Your task to perform on an android device: Look up the best gaming chair on Best Buy. Image 0: 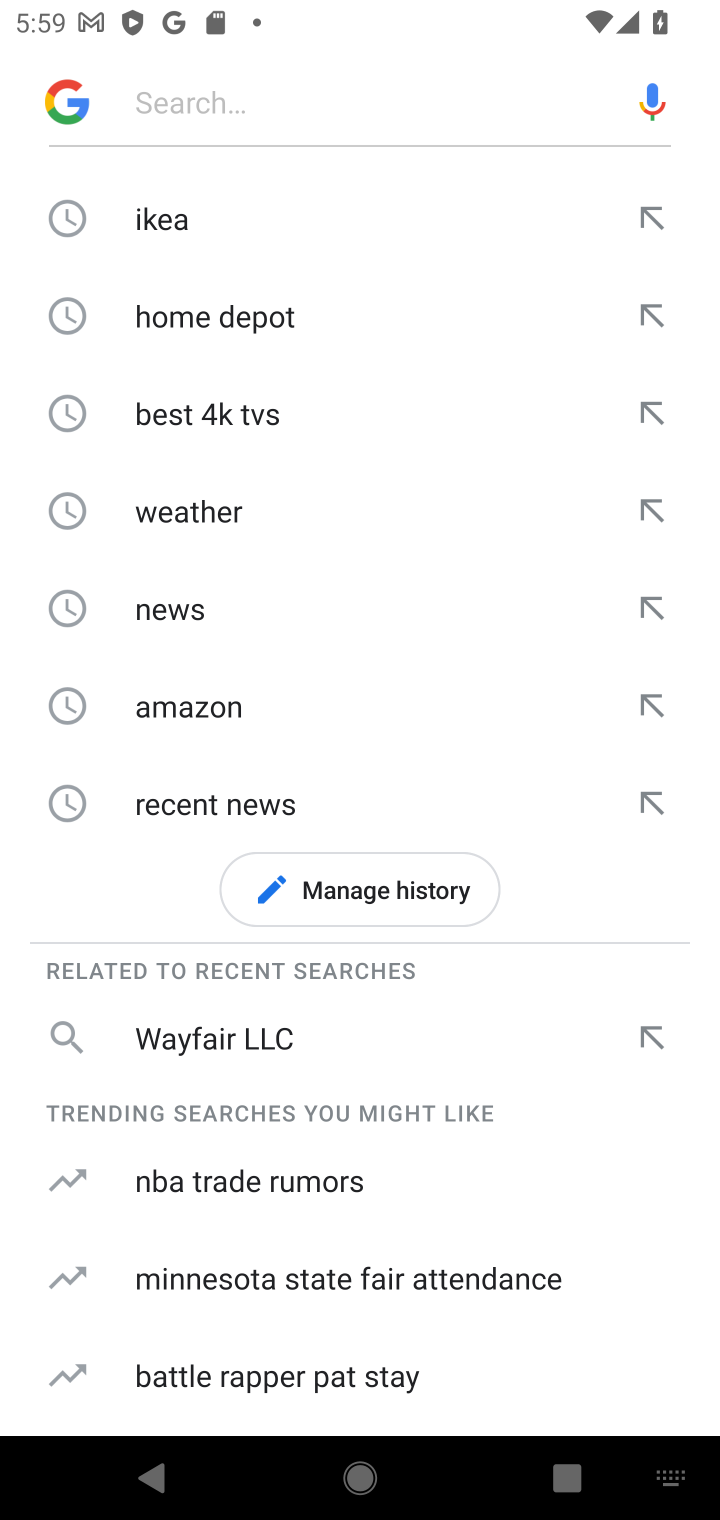
Step 0: press home button
Your task to perform on an android device: Look up the best gaming chair on Best Buy. Image 1: 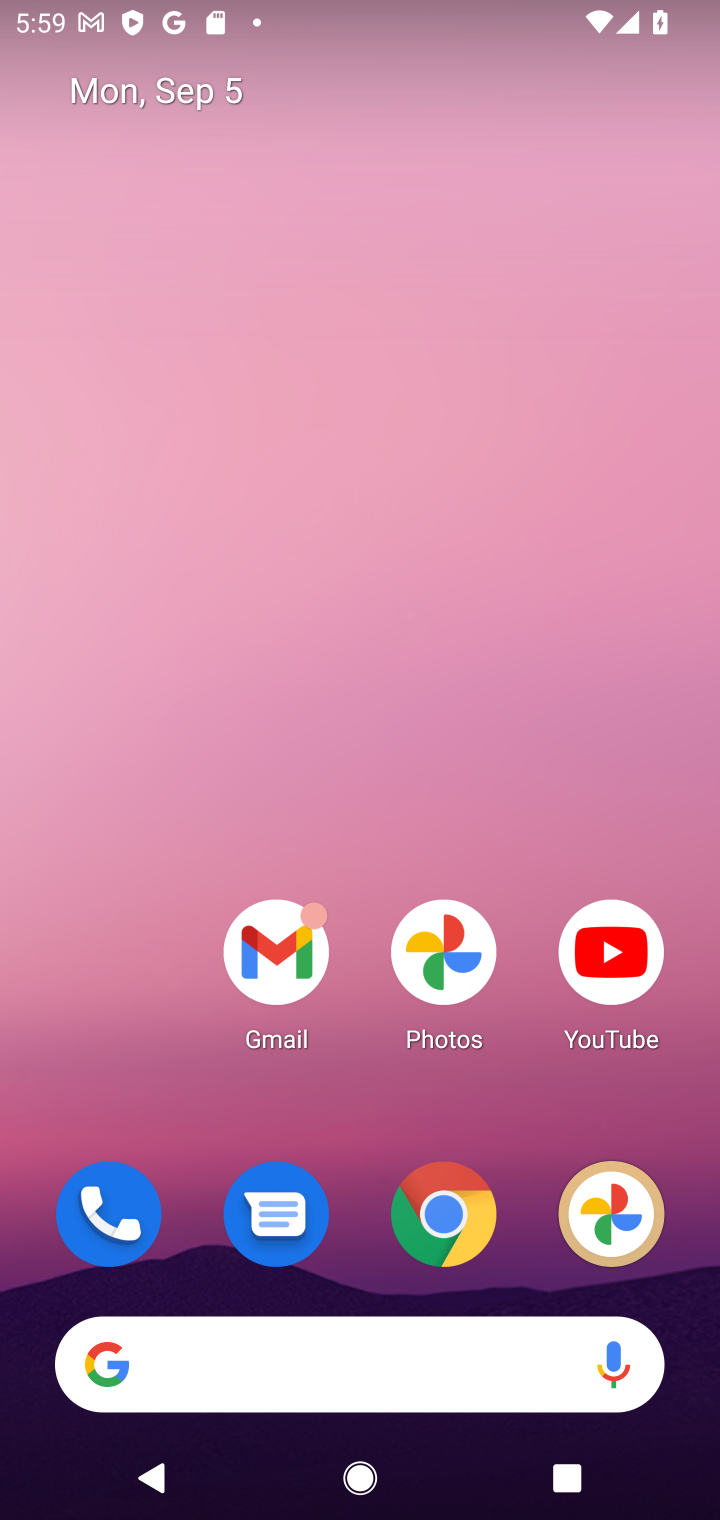
Step 1: drag from (370, 1110) to (308, 2)
Your task to perform on an android device: Look up the best gaming chair on Best Buy. Image 2: 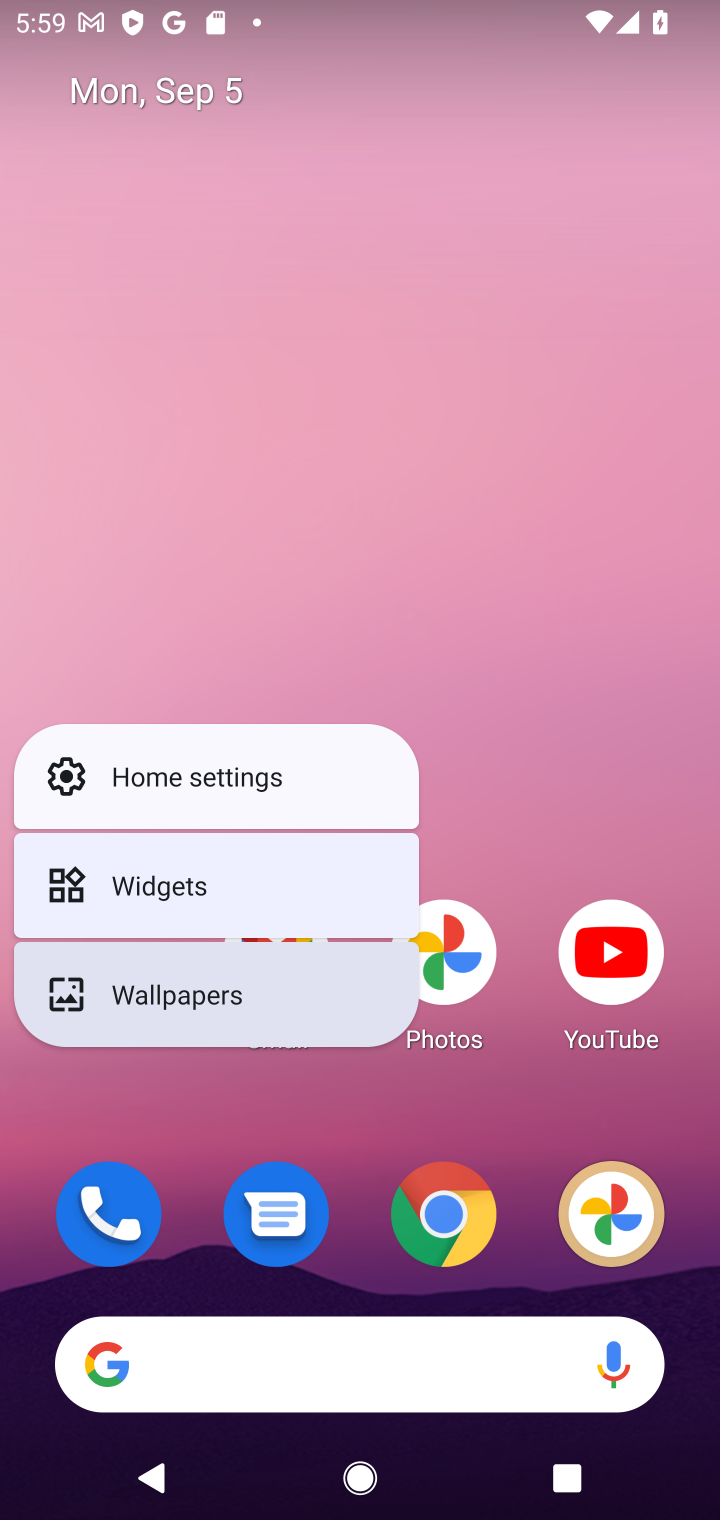
Step 2: click (509, 620)
Your task to perform on an android device: Look up the best gaming chair on Best Buy. Image 3: 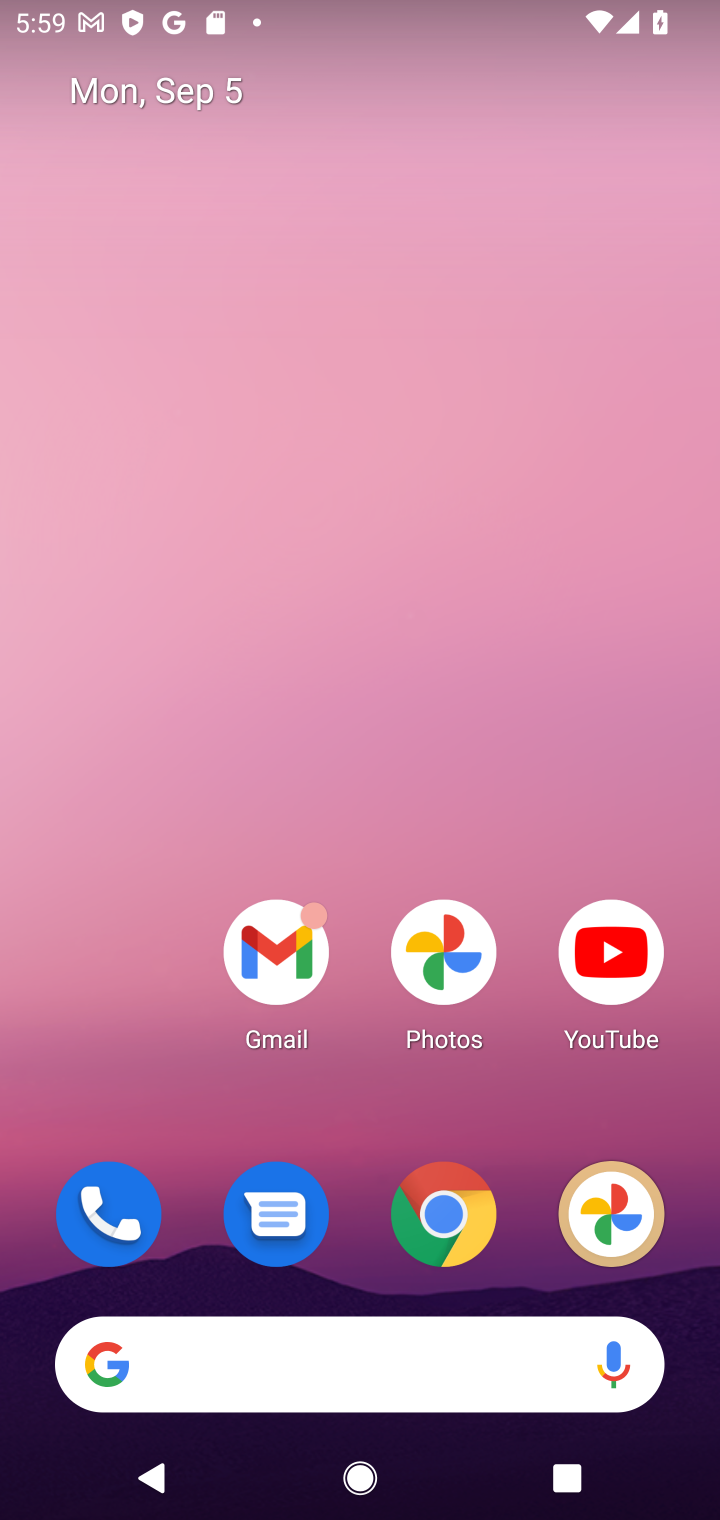
Step 3: drag from (368, 1120) to (346, 185)
Your task to perform on an android device: Look up the best gaming chair on Best Buy. Image 4: 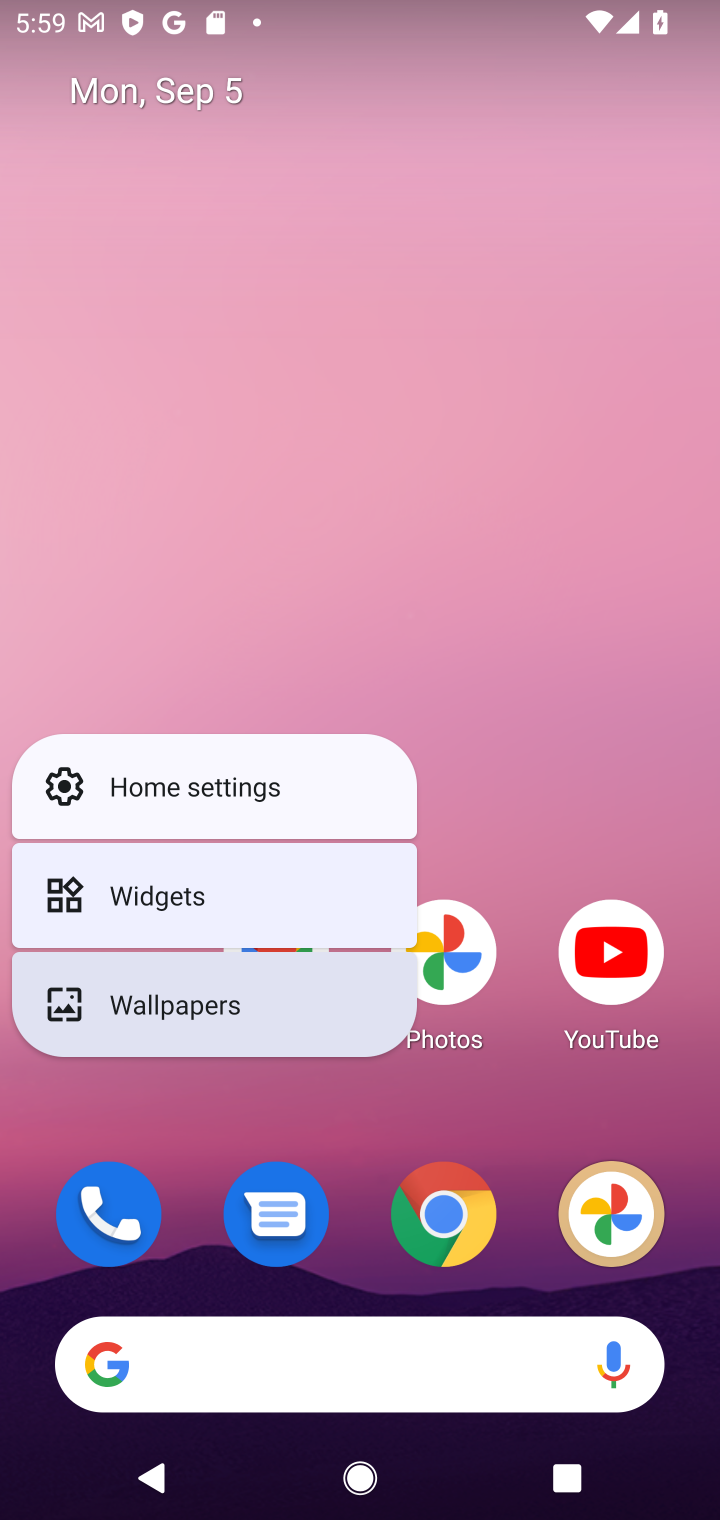
Step 4: click (484, 725)
Your task to perform on an android device: Look up the best gaming chair on Best Buy. Image 5: 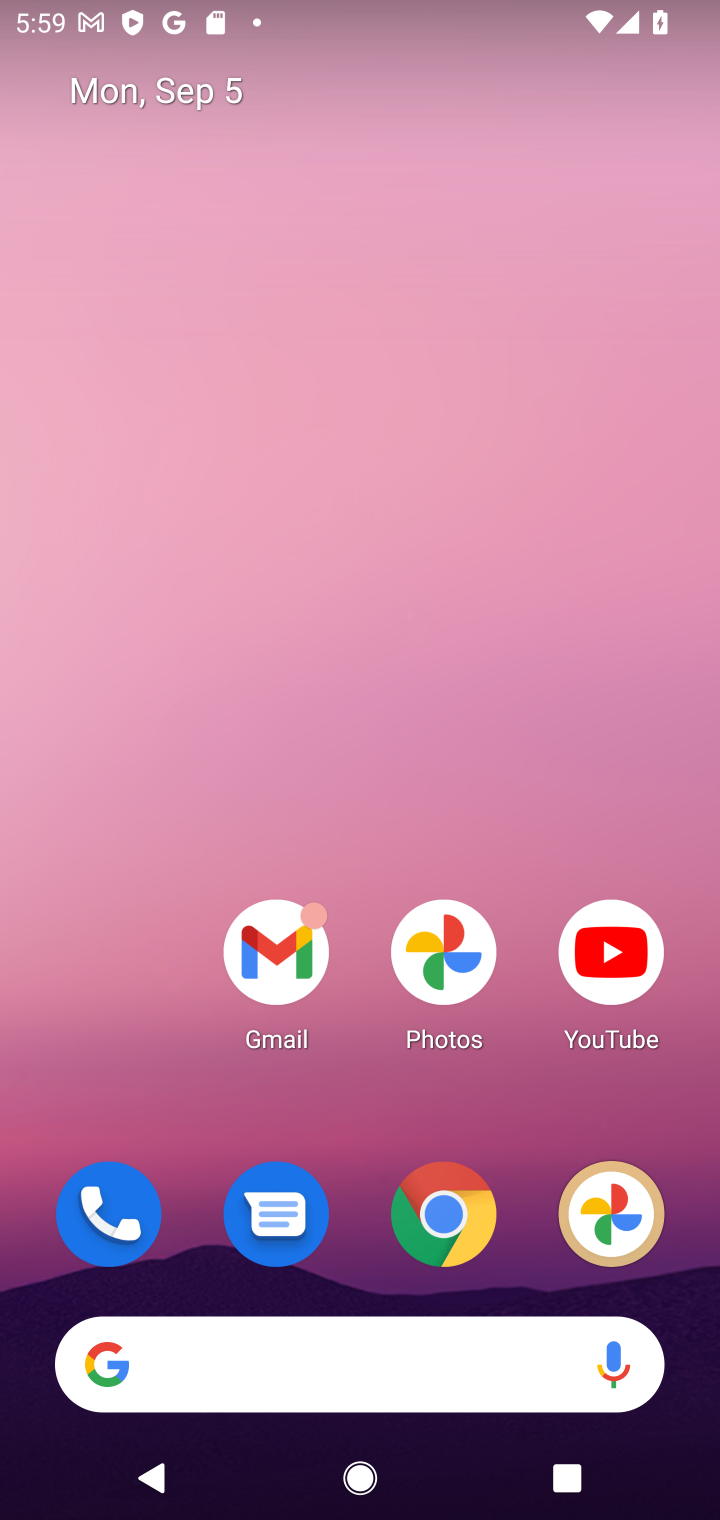
Step 5: drag from (400, 965) to (483, 209)
Your task to perform on an android device: Look up the best gaming chair on Best Buy. Image 6: 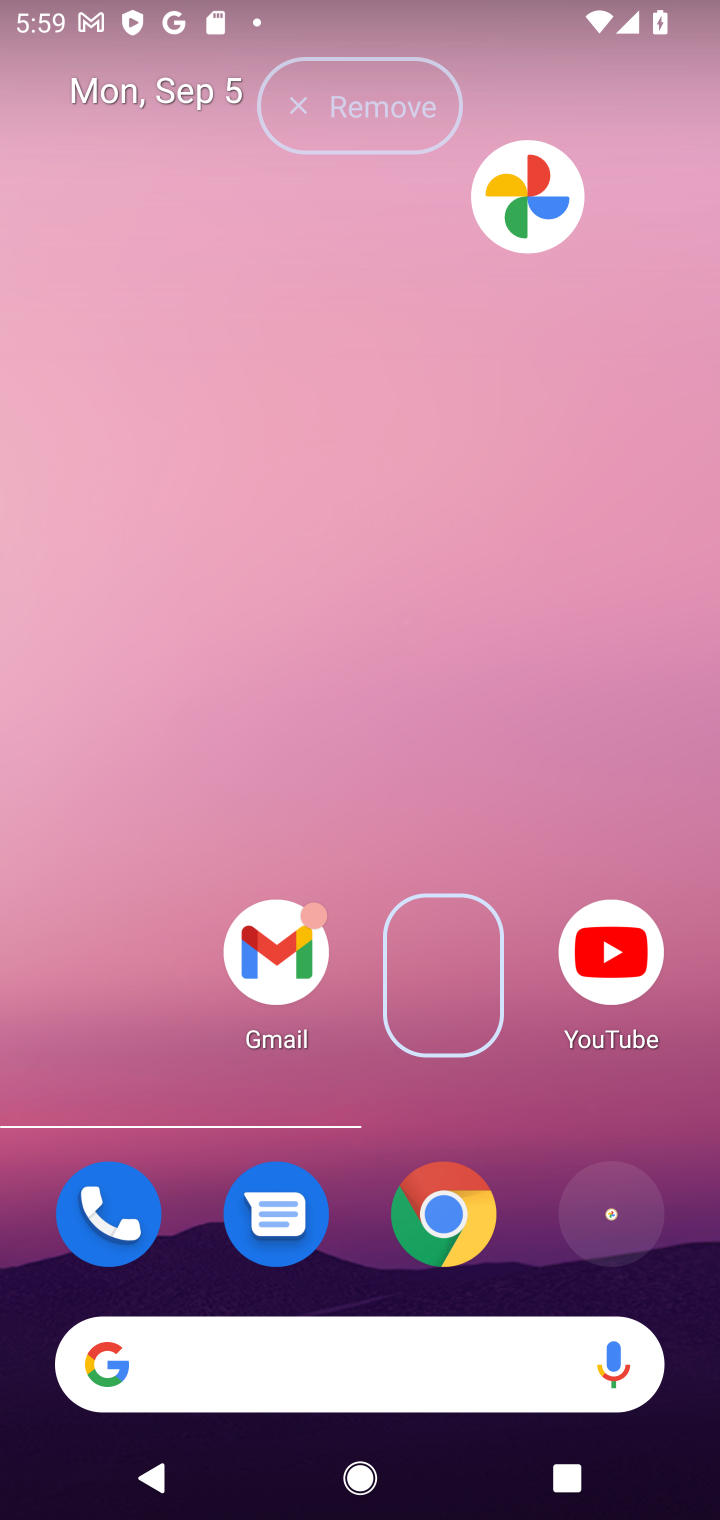
Step 6: click (540, 560)
Your task to perform on an android device: Look up the best gaming chair on Best Buy. Image 7: 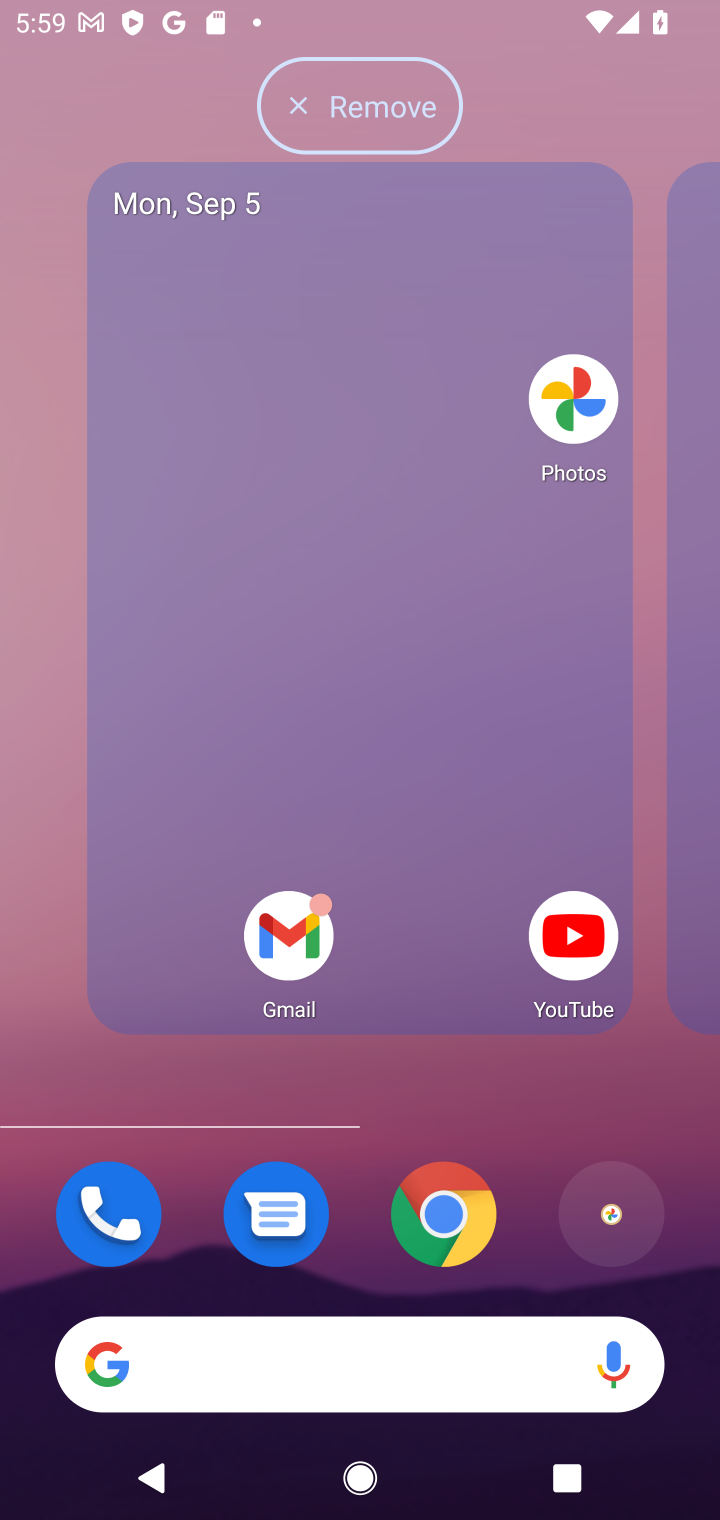
Step 7: click (239, 724)
Your task to perform on an android device: Look up the best gaming chair on Best Buy. Image 8: 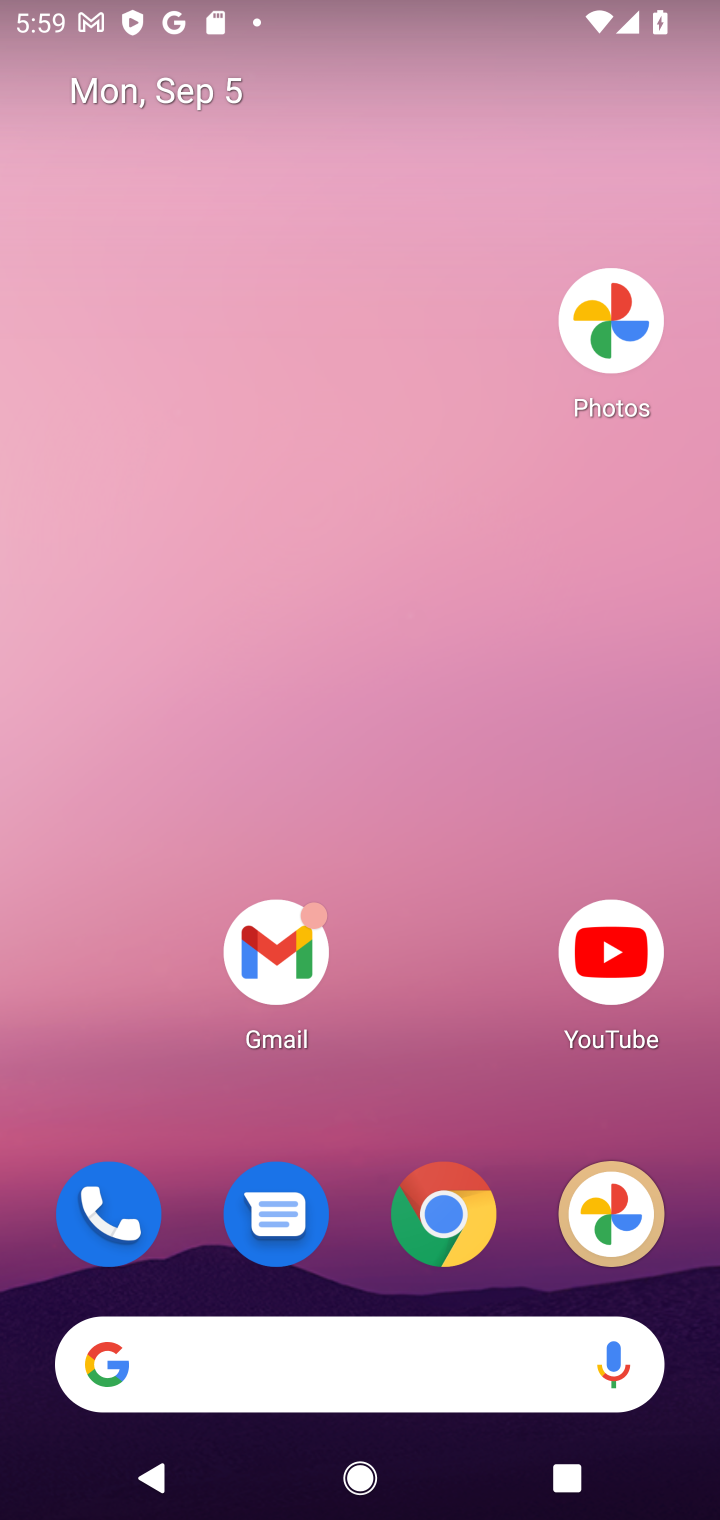
Step 8: drag from (399, 1087) to (317, 110)
Your task to perform on an android device: Look up the best gaming chair on Best Buy. Image 9: 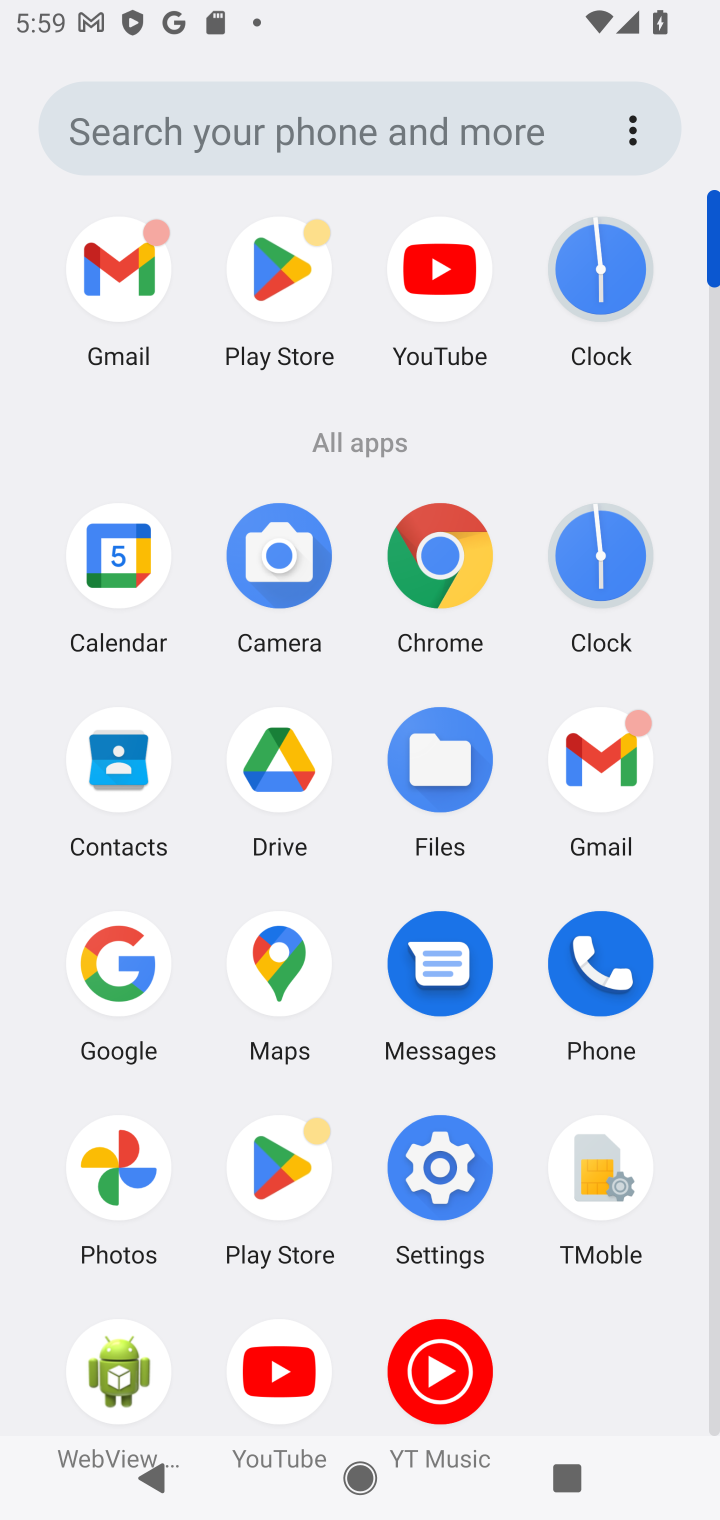
Step 9: click (430, 553)
Your task to perform on an android device: Look up the best gaming chair on Best Buy. Image 10: 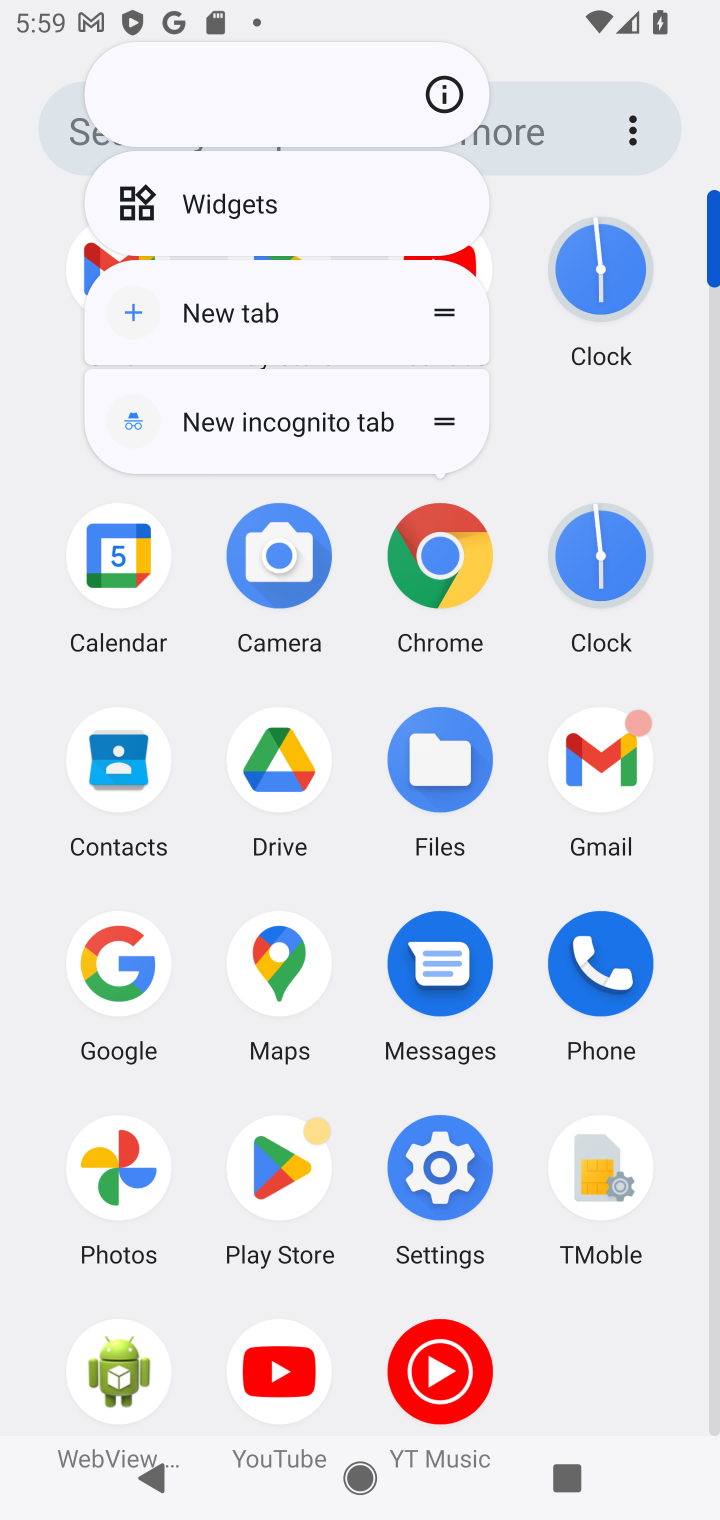
Step 10: click (444, 533)
Your task to perform on an android device: Look up the best gaming chair on Best Buy. Image 11: 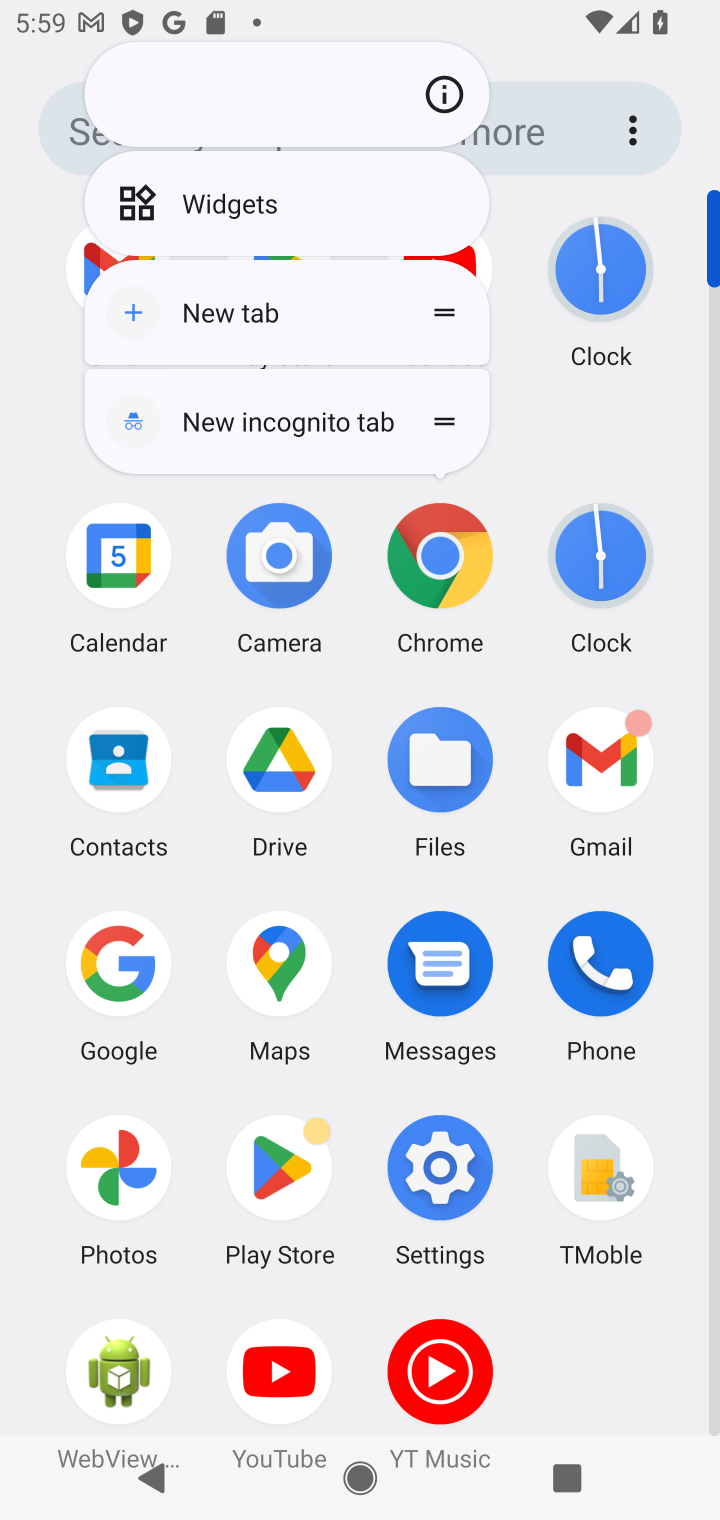
Step 11: click (432, 570)
Your task to perform on an android device: Look up the best gaming chair on Best Buy. Image 12: 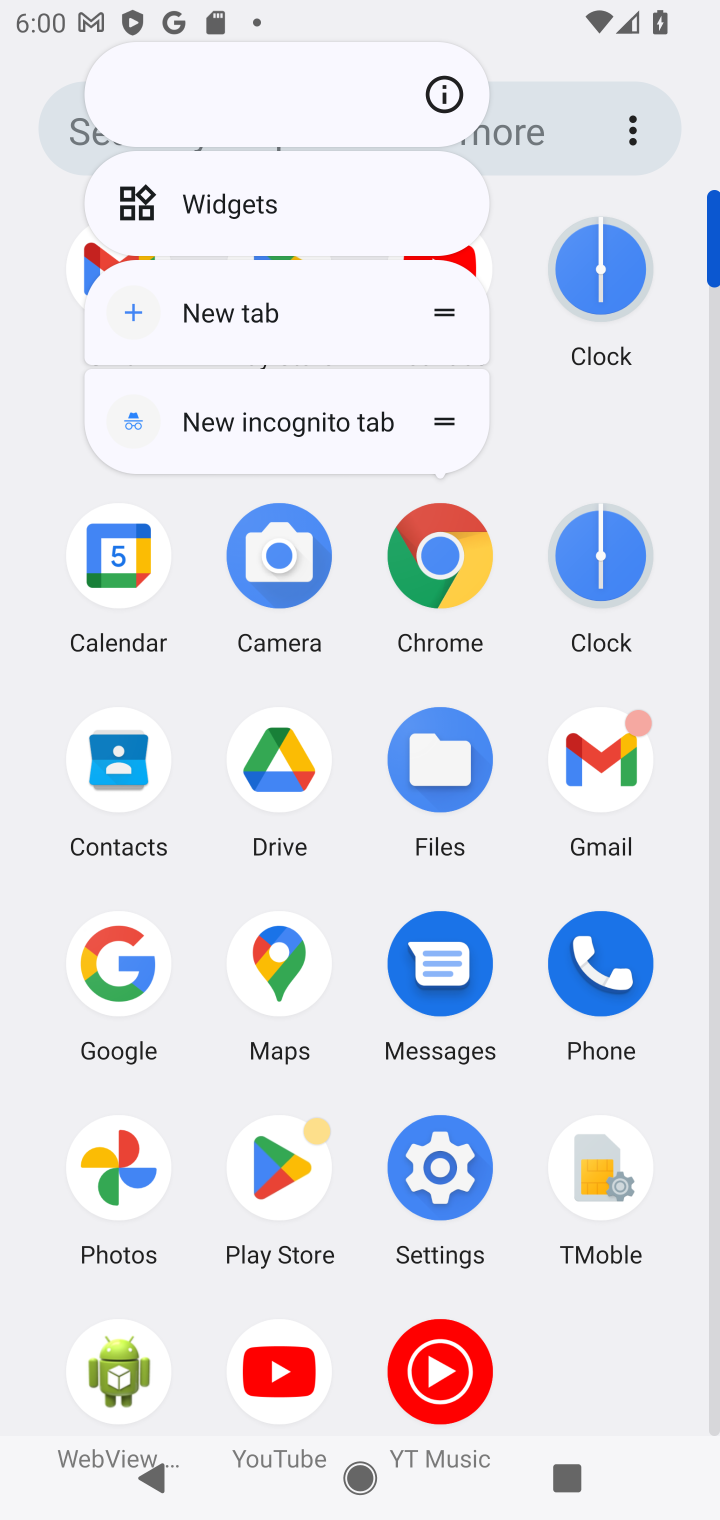
Step 12: click (442, 557)
Your task to perform on an android device: Look up the best gaming chair on Best Buy. Image 13: 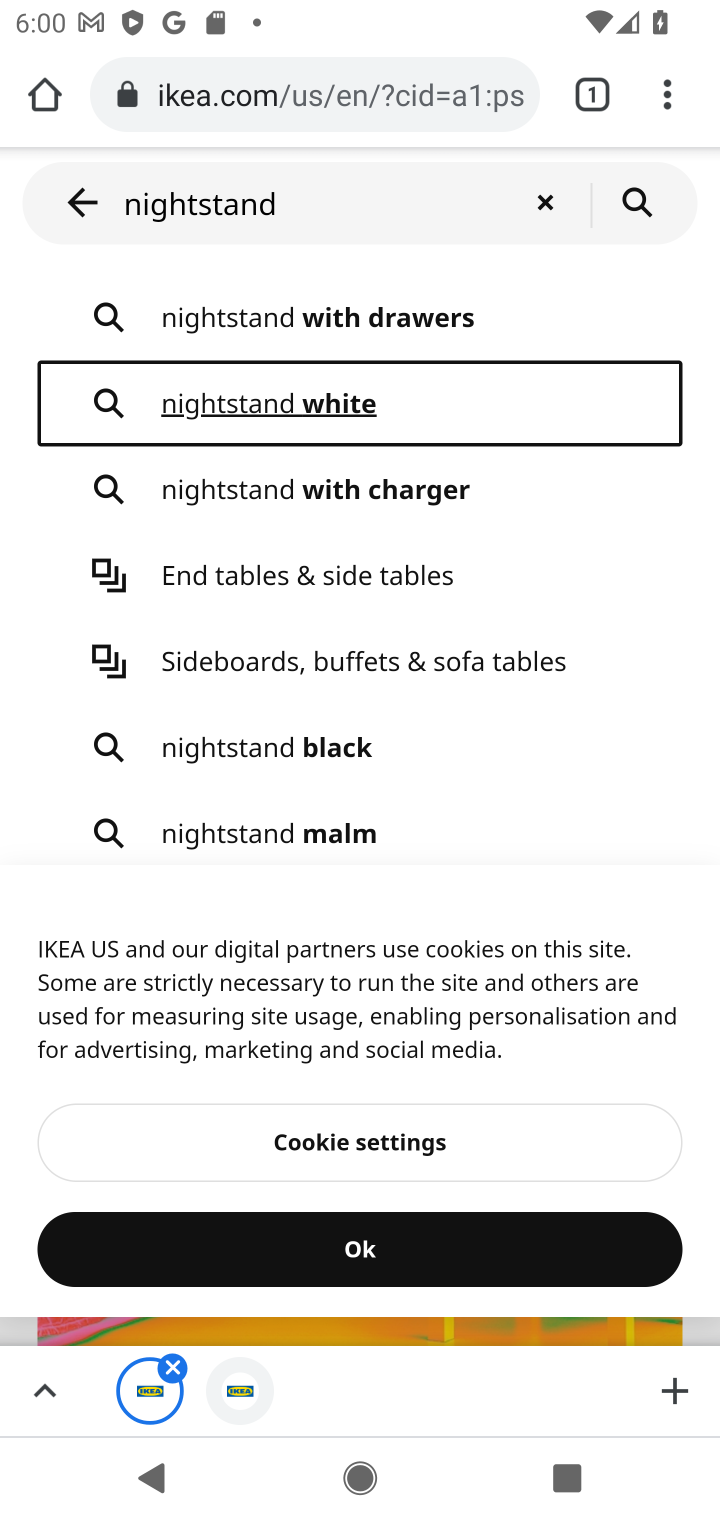
Step 13: click (290, 93)
Your task to perform on an android device: Look up the best gaming chair on Best Buy. Image 14: 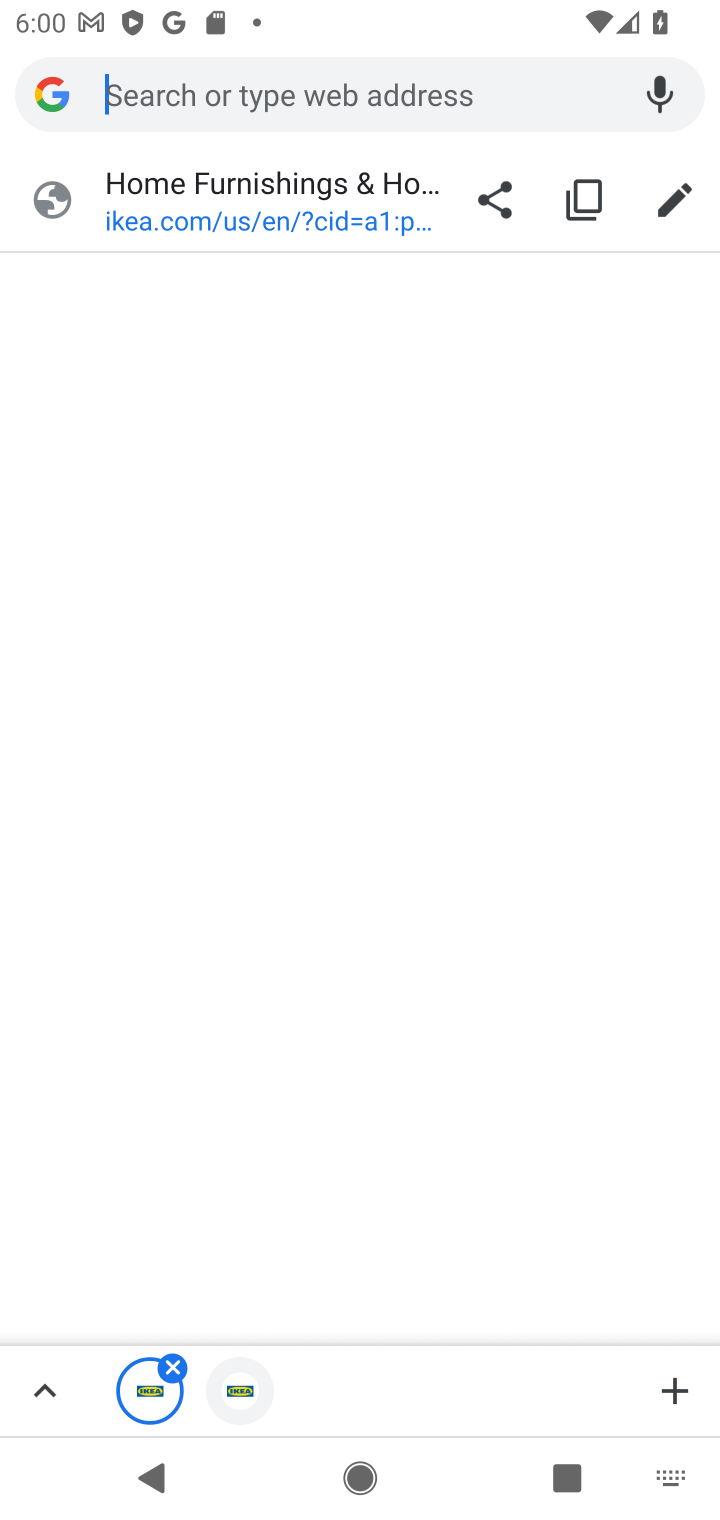
Step 14: click (290, 93)
Your task to perform on an android device: Look up the best gaming chair on Best Buy. Image 15: 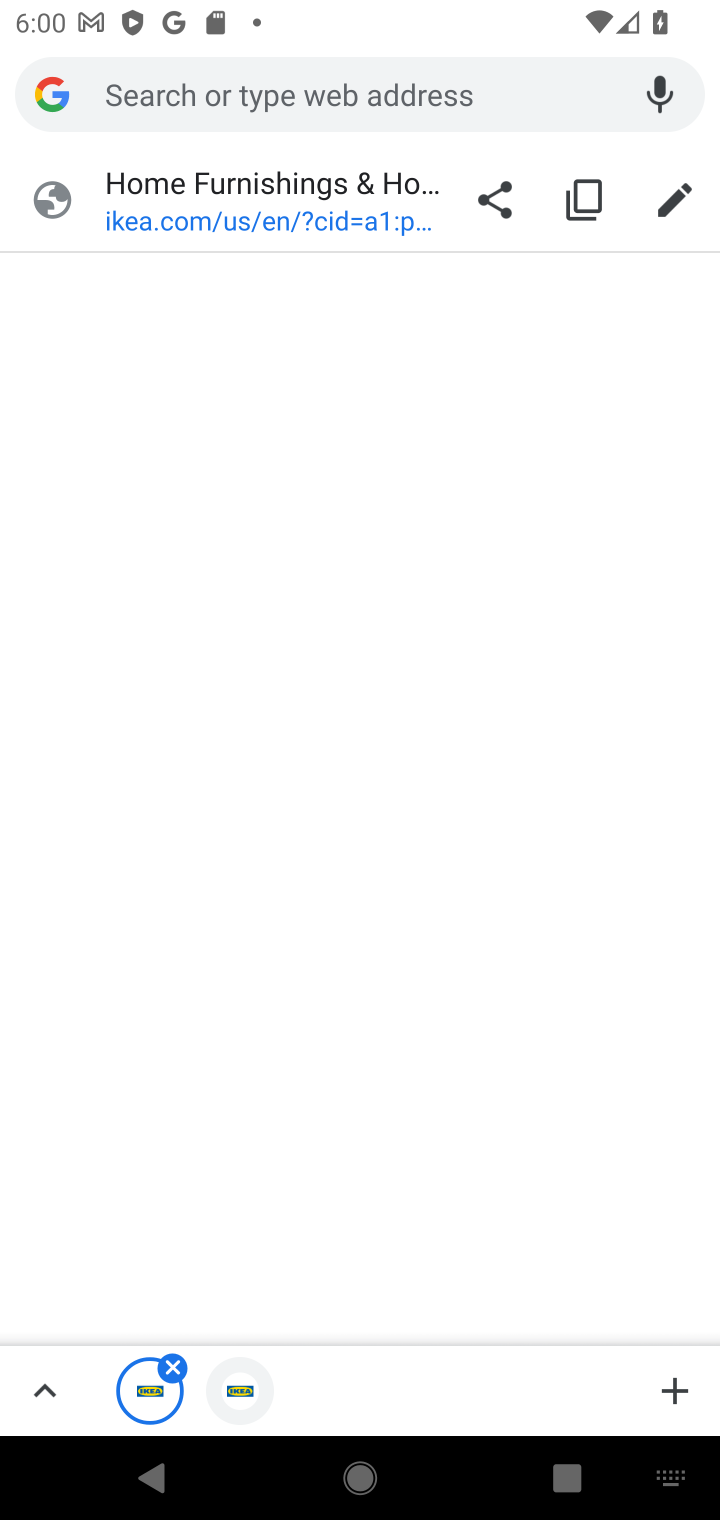
Step 15: type "Best Buy"
Your task to perform on an android device: Look up the best gaming chair on Best Buy. Image 16: 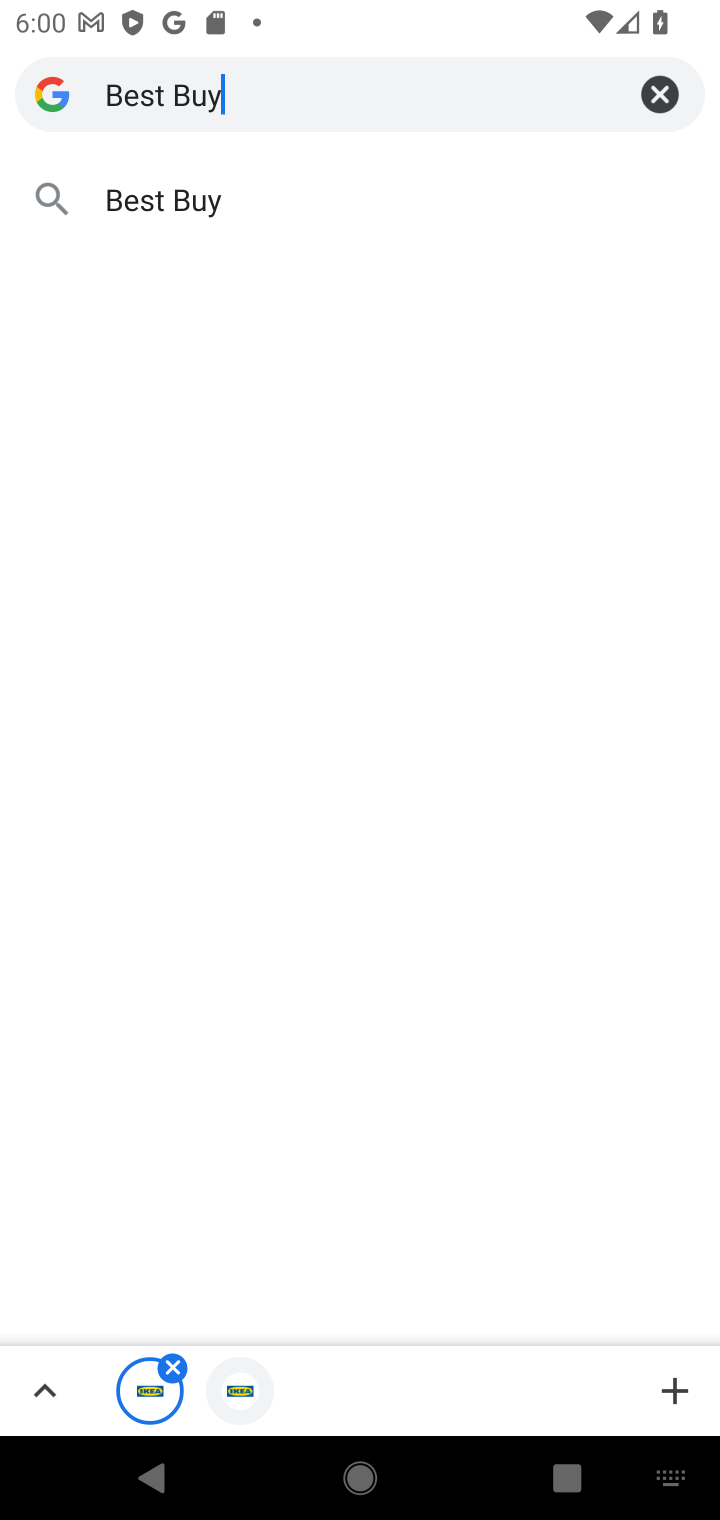
Step 16: click (188, 193)
Your task to perform on an android device: Look up the best gaming chair on Best Buy. Image 17: 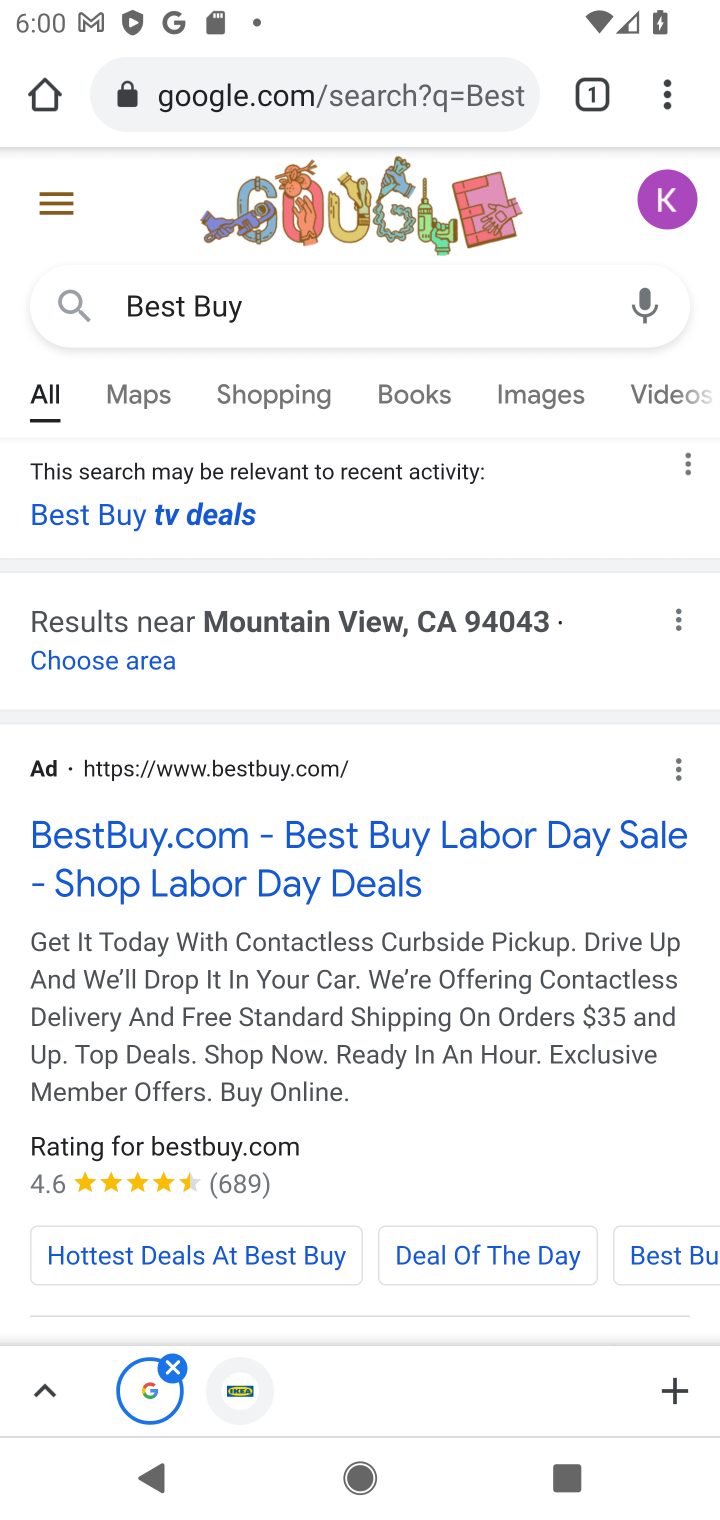
Step 17: click (212, 830)
Your task to perform on an android device: Look up the best gaming chair on Best Buy. Image 18: 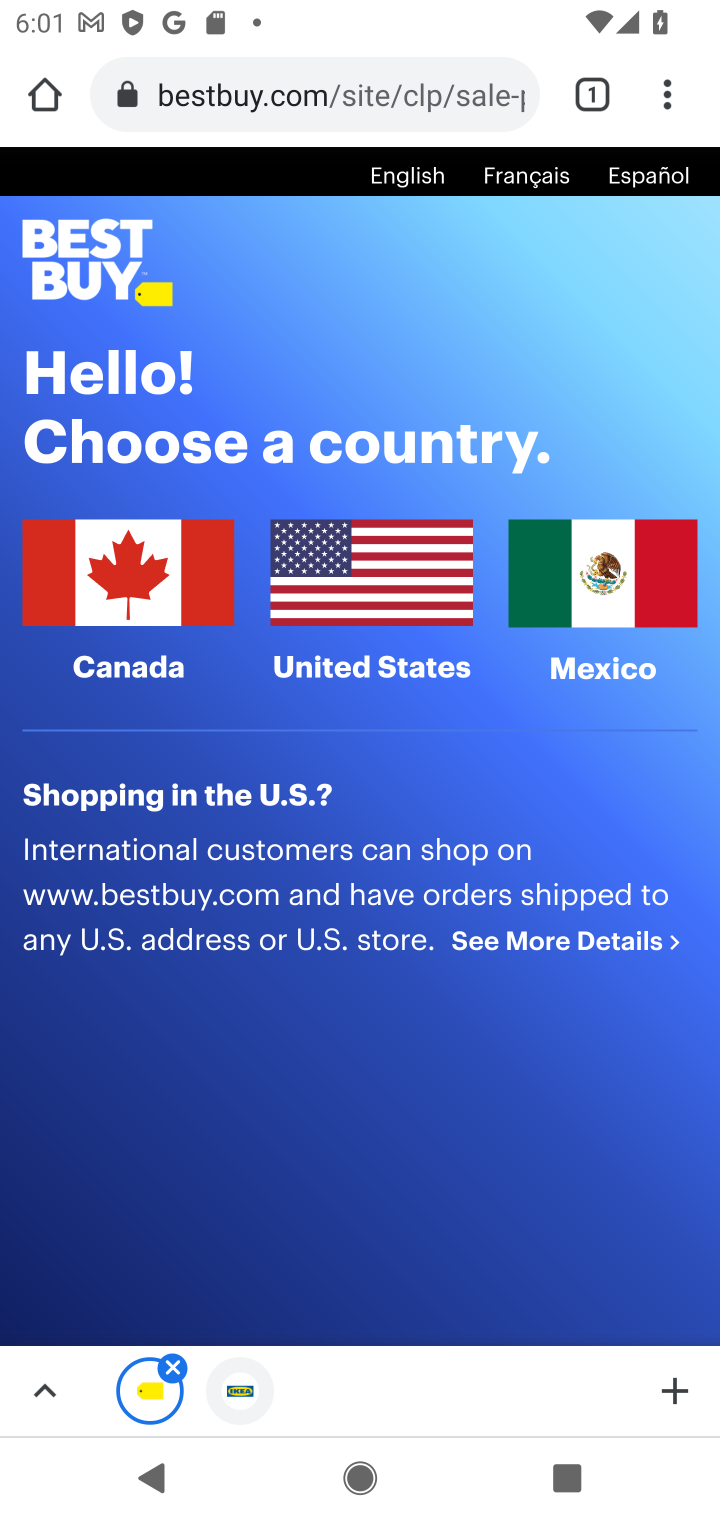
Step 18: task complete